Your task to perform on an android device: turn notification dots off Image 0: 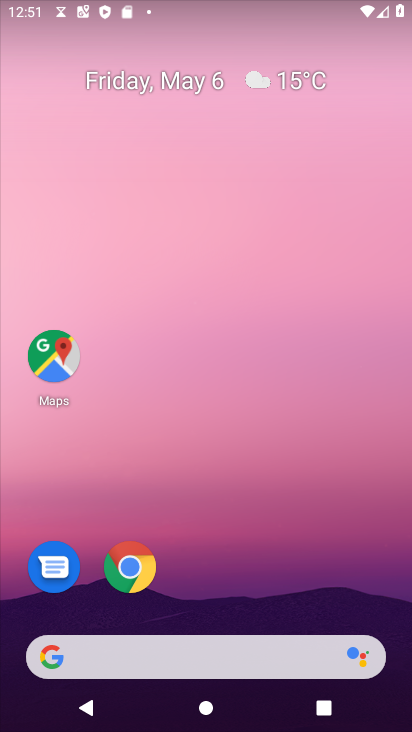
Step 0: drag from (268, 555) to (258, 120)
Your task to perform on an android device: turn notification dots off Image 1: 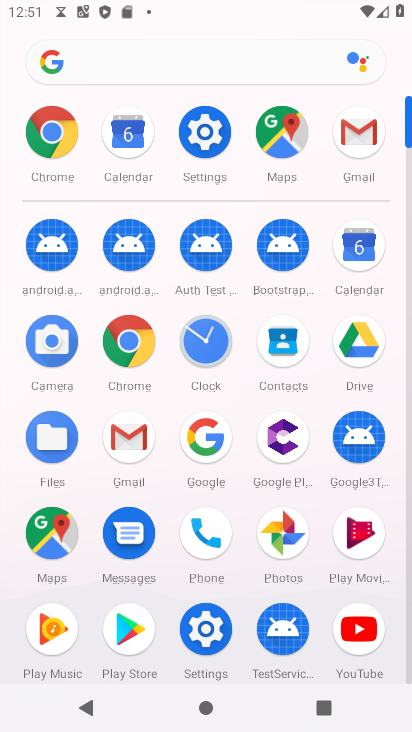
Step 1: click (208, 136)
Your task to perform on an android device: turn notification dots off Image 2: 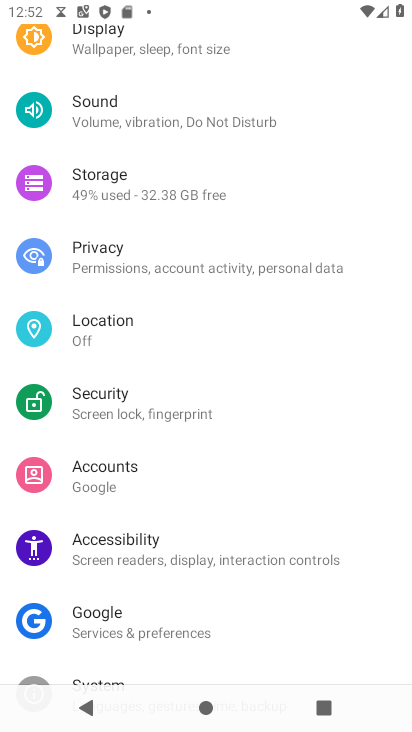
Step 2: drag from (275, 253) to (295, 561)
Your task to perform on an android device: turn notification dots off Image 3: 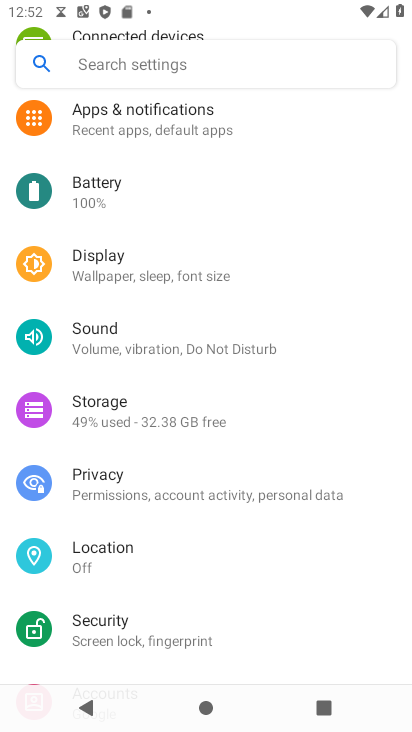
Step 3: drag from (247, 277) to (243, 608)
Your task to perform on an android device: turn notification dots off Image 4: 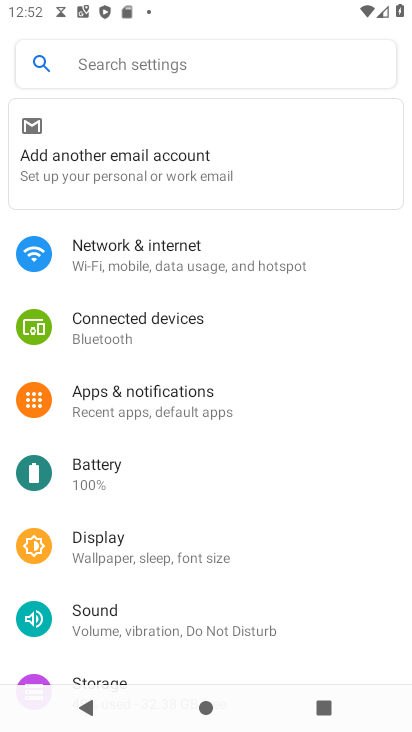
Step 4: drag from (216, 566) to (236, 483)
Your task to perform on an android device: turn notification dots off Image 5: 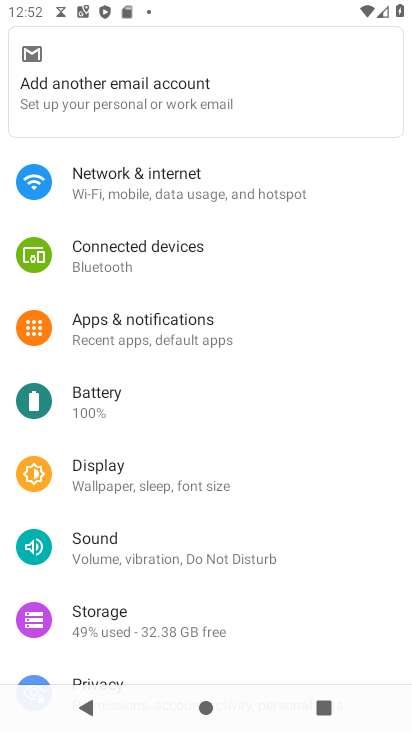
Step 5: click (154, 337)
Your task to perform on an android device: turn notification dots off Image 6: 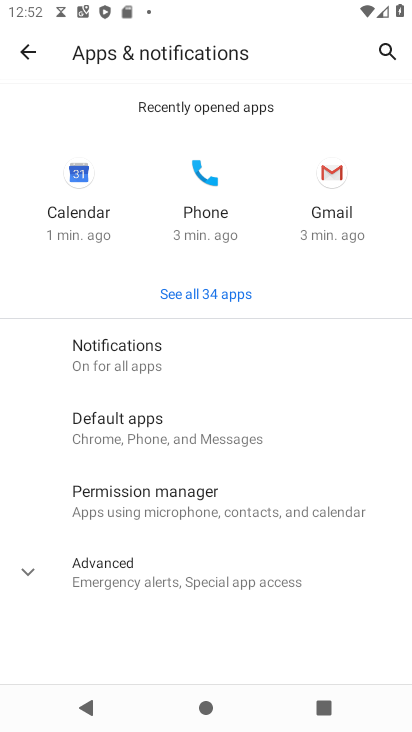
Step 6: click (125, 571)
Your task to perform on an android device: turn notification dots off Image 7: 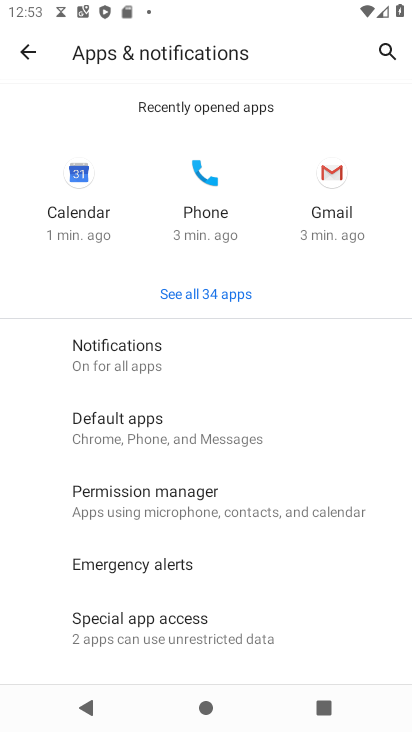
Step 7: drag from (161, 632) to (145, 336)
Your task to perform on an android device: turn notification dots off Image 8: 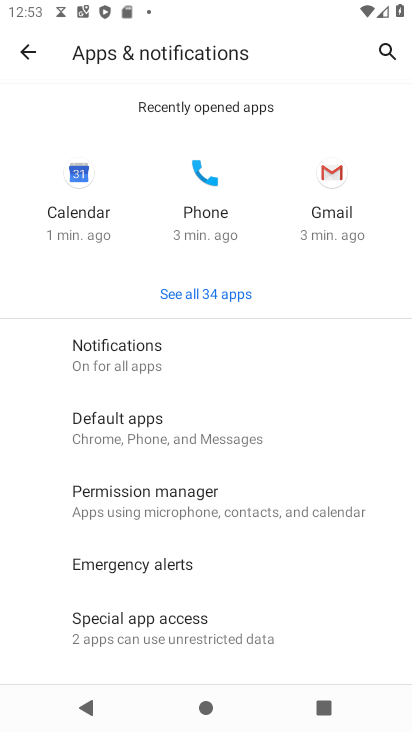
Step 8: drag from (189, 619) to (216, 354)
Your task to perform on an android device: turn notification dots off Image 9: 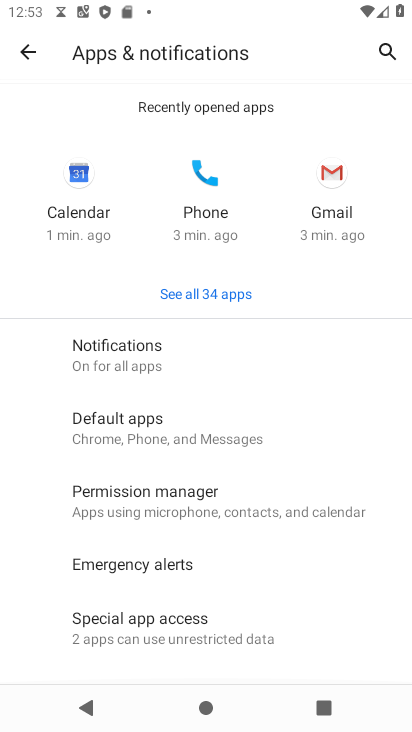
Step 9: click (119, 360)
Your task to perform on an android device: turn notification dots off Image 10: 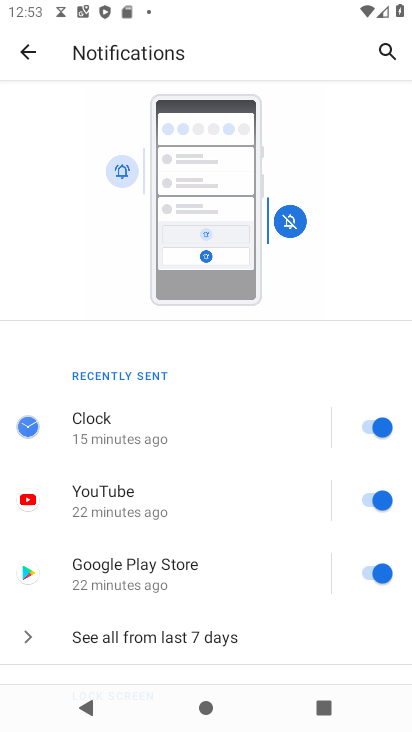
Step 10: drag from (214, 630) to (232, 324)
Your task to perform on an android device: turn notification dots off Image 11: 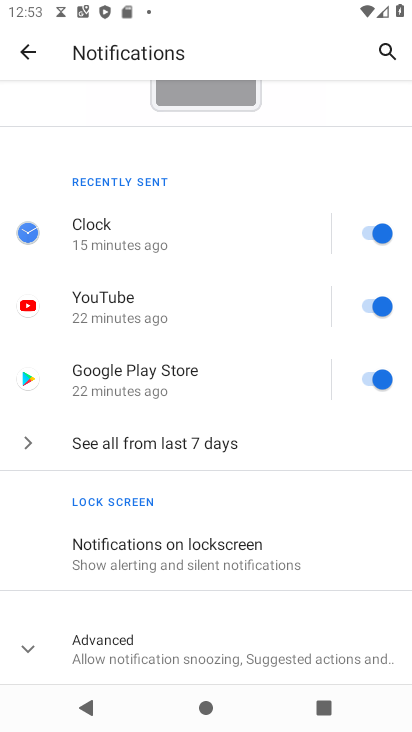
Step 11: drag from (195, 554) to (228, 247)
Your task to perform on an android device: turn notification dots off Image 12: 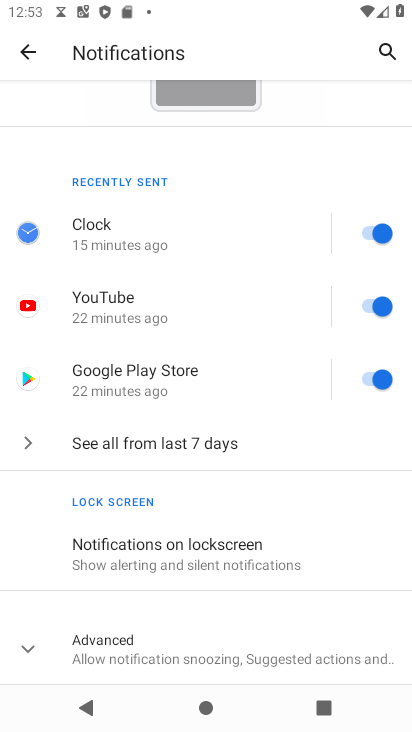
Step 12: click (139, 668)
Your task to perform on an android device: turn notification dots off Image 13: 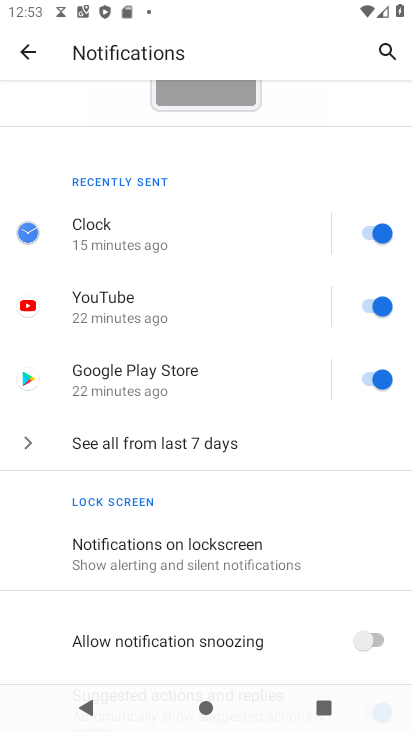
Step 13: task complete